Your task to perform on an android device: Go to sound settings Image 0: 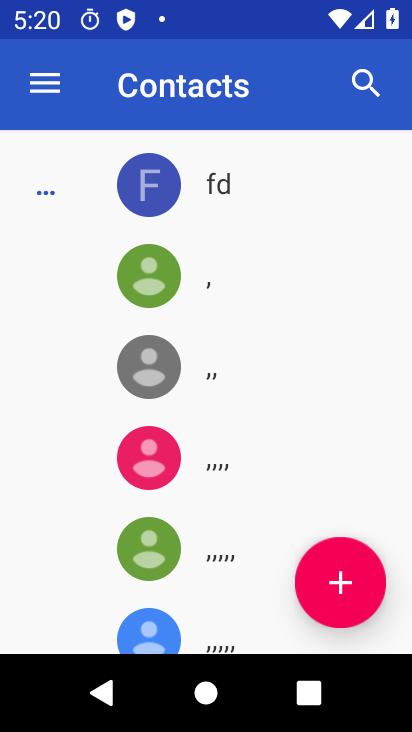
Step 0: press home button
Your task to perform on an android device: Go to sound settings Image 1: 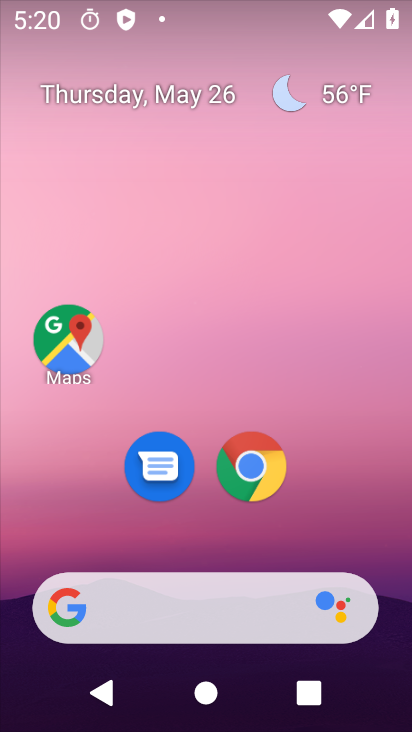
Step 1: drag from (287, 515) to (313, 74)
Your task to perform on an android device: Go to sound settings Image 2: 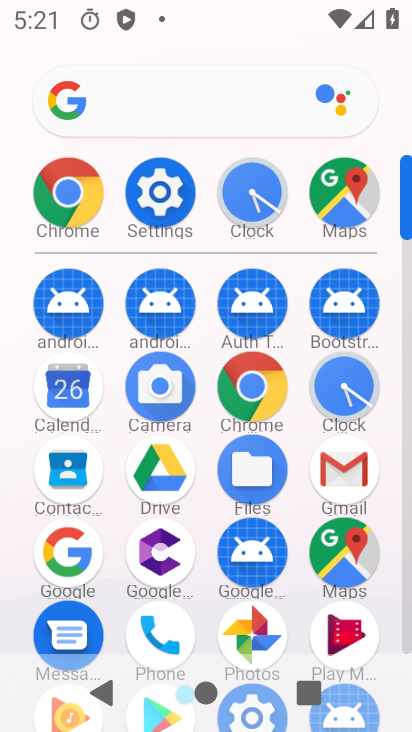
Step 2: click (169, 193)
Your task to perform on an android device: Go to sound settings Image 3: 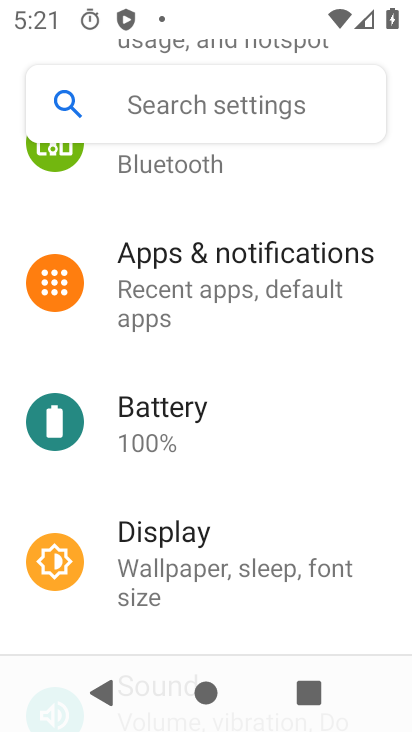
Step 3: drag from (326, 270) to (364, 242)
Your task to perform on an android device: Go to sound settings Image 4: 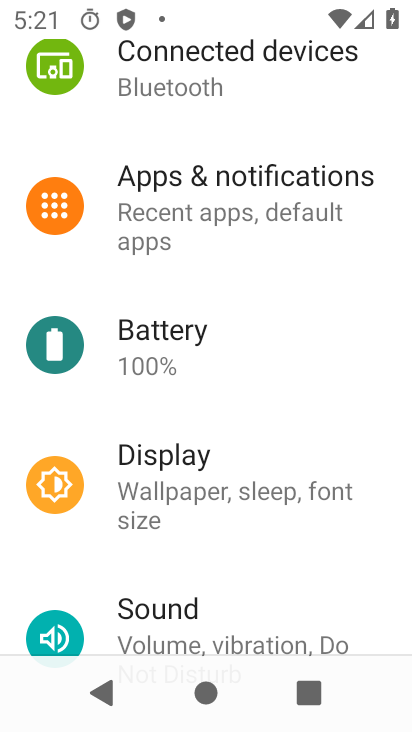
Step 4: click (166, 614)
Your task to perform on an android device: Go to sound settings Image 5: 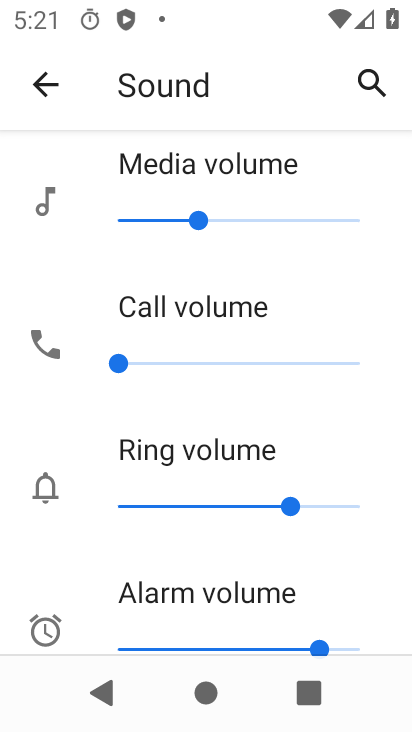
Step 5: task complete